Your task to perform on an android device: set the timer Image 0: 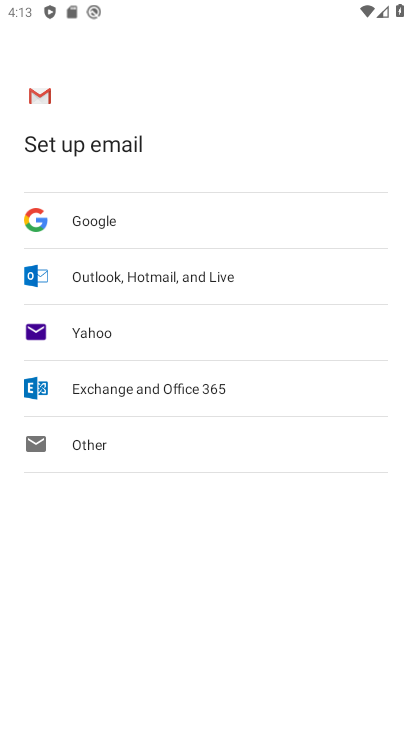
Step 0: press home button
Your task to perform on an android device: set the timer Image 1: 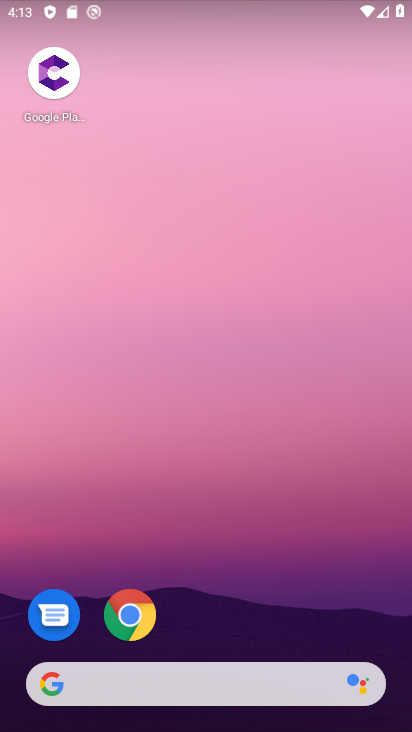
Step 1: drag from (264, 563) to (263, 159)
Your task to perform on an android device: set the timer Image 2: 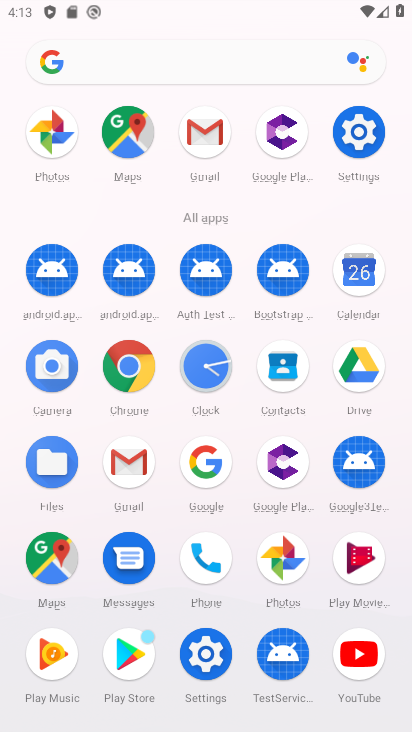
Step 2: click (203, 358)
Your task to perform on an android device: set the timer Image 3: 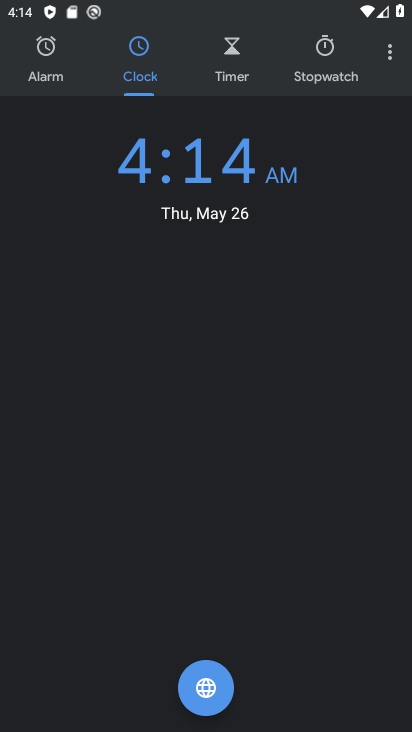
Step 3: click (227, 58)
Your task to perform on an android device: set the timer Image 4: 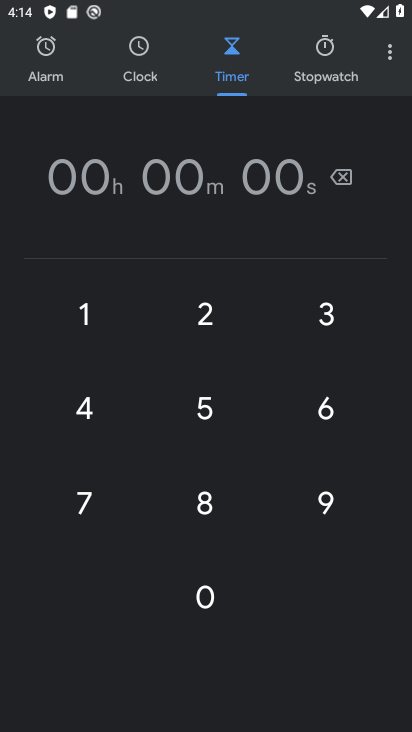
Step 4: click (205, 408)
Your task to perform on an android device: set the timer Image 5: 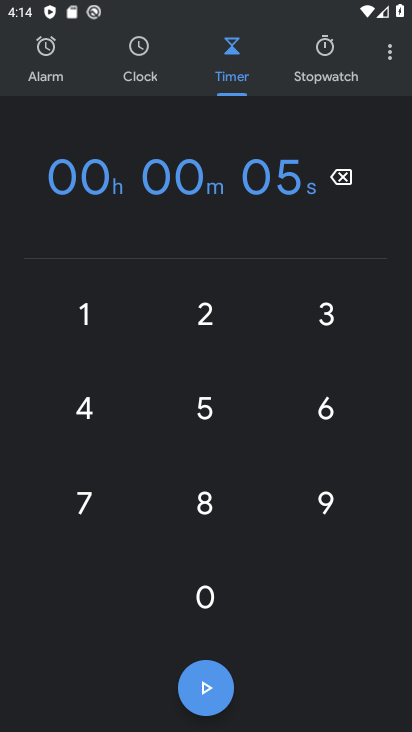
Step 5: task complete